Your task to perform on an android device: change the clock display to analog Image 0: 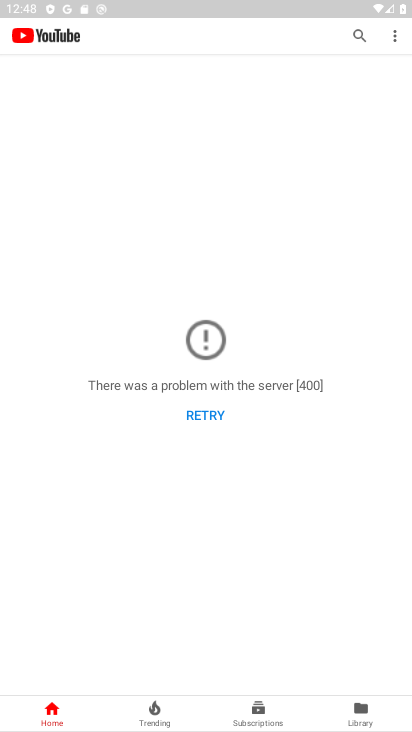
Step 0: press home button
Your task to perform on an android device: change the clock display to analog Image 1: 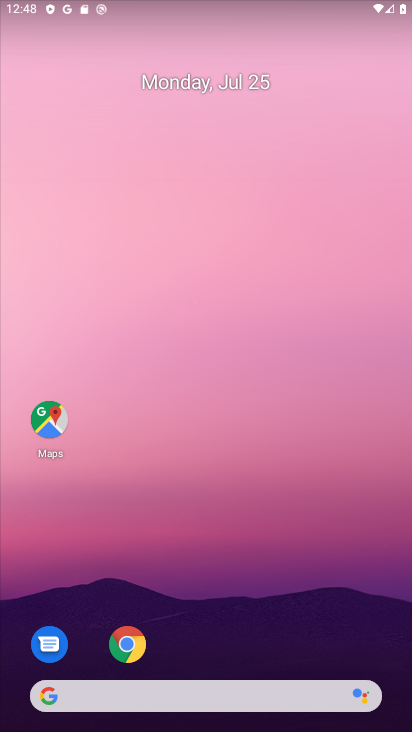
Step 1: drag from (231, 596) to (205, 39)
Your task to perform on an android device: change the clock display to analog Image 2: 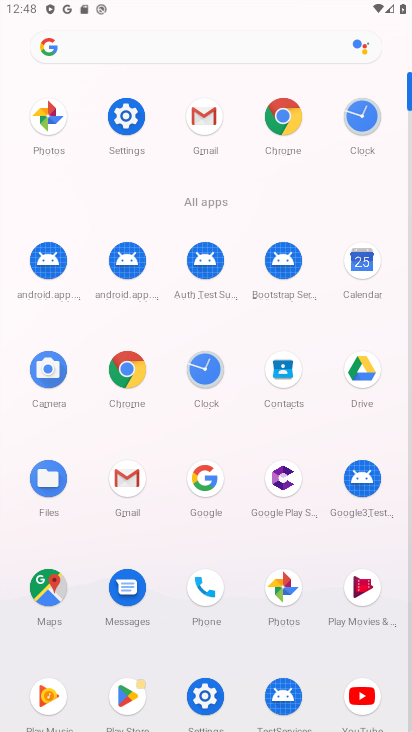
Step 2: click (200, 385)
Your task to perform on an android device: change the clock display to analog Image 3: 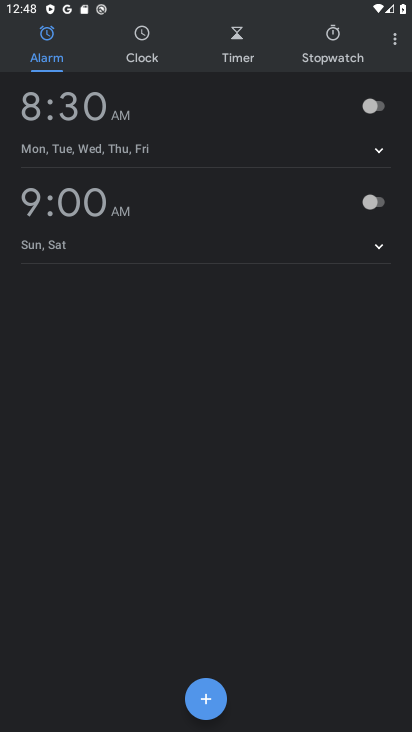
Step 3: click (387, 35)
Your task to perform on an android device: change the clock display to analog Image 4: 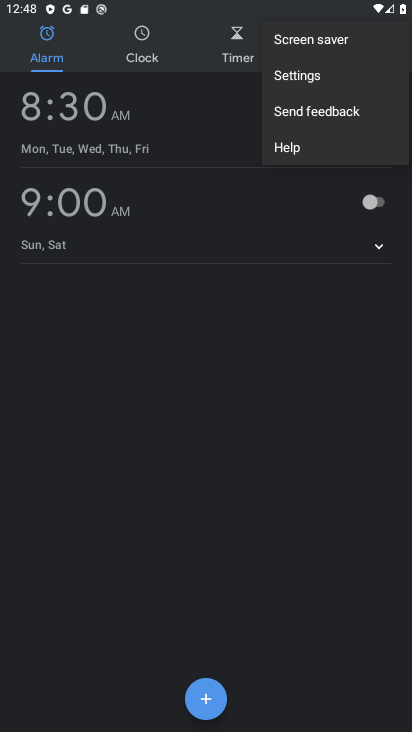
Step 4: click (309, 85)
Your task to perform on an android device: change the clock display to analog Image 5: 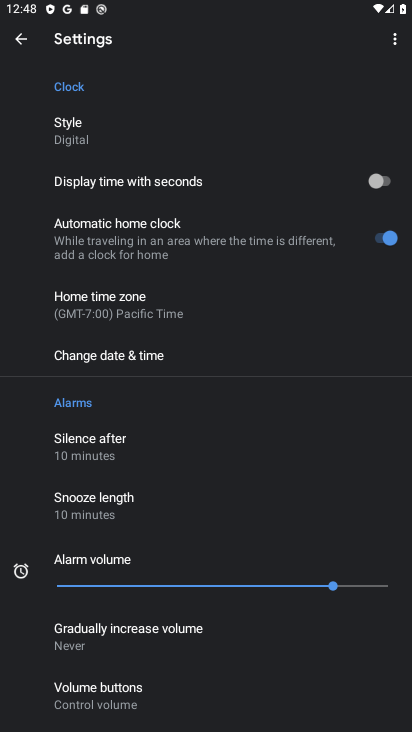
Step 5: click (75, 145)
Your task to perform on an android device: change the clock display to analog Image 6: 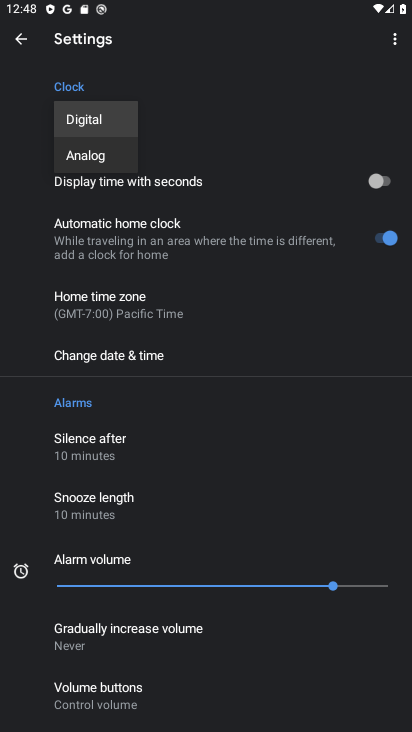
Step 6: click (115, 158)
Your task to perform on an android device: change the clock display to analog Image 7: 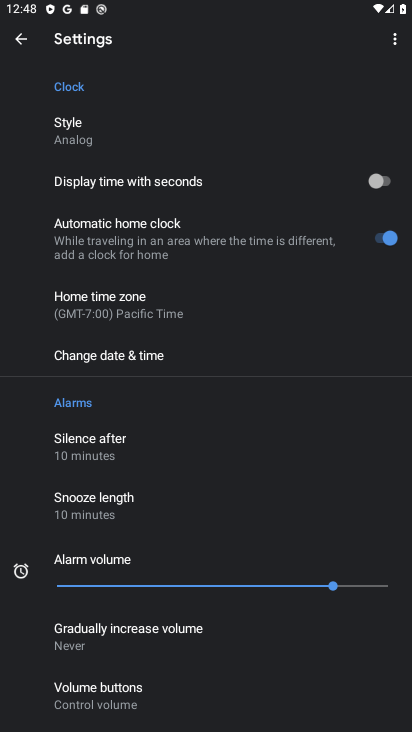
Step 7: task complete